Your task to perform on an android device: Open ESPN.com Image 0: 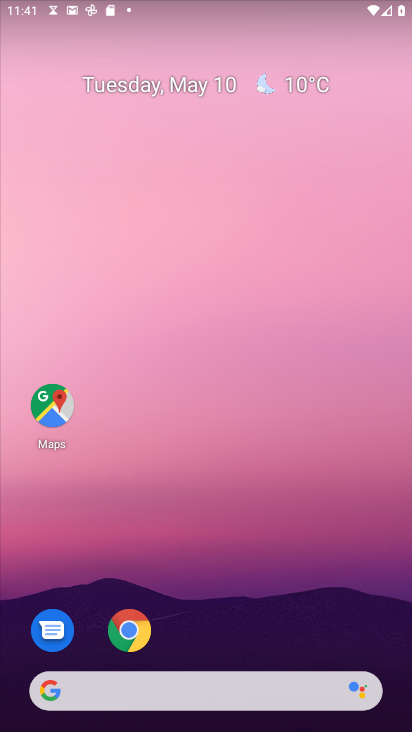
Step 0: click (145, 633)
Your task to perform on an android device: Open ESPN.com Image 1: 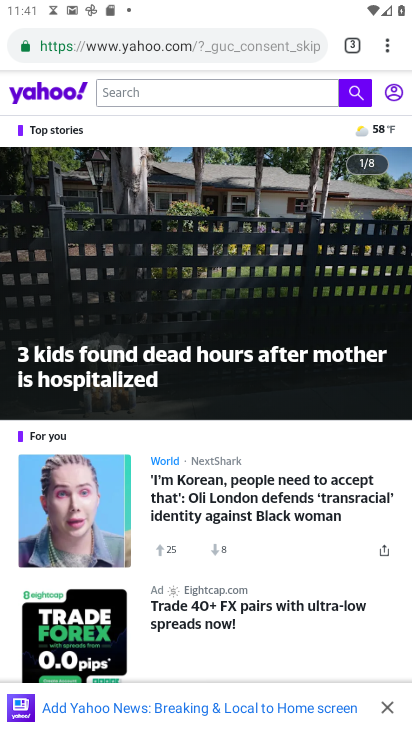
Step 1: click (190, 37)
Your task to perform on an android device: Open ESPN.com Image 2: 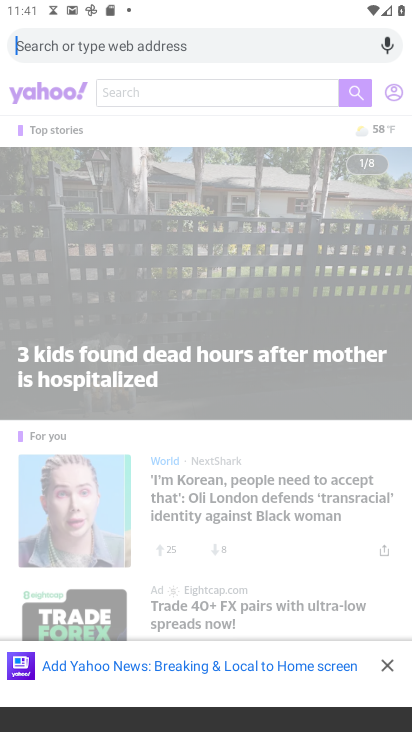
Step 2: click (191, 39)
Your task to perform on an android device: Open ESPN.com Image 3: 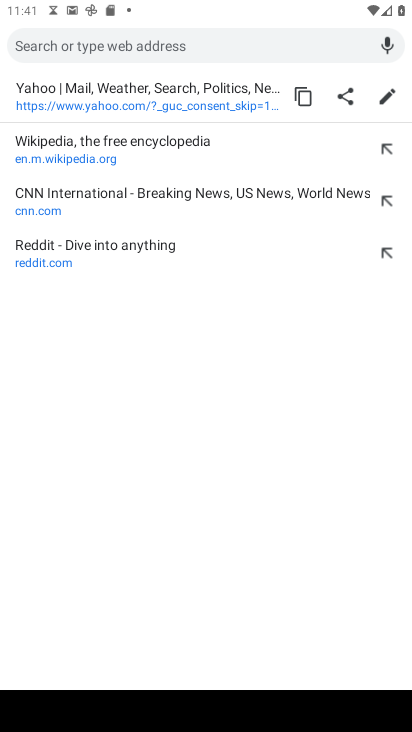
Step 3: type "ESPN.com"
Your task to perform on an android device: Open ESPN.com Image 4: 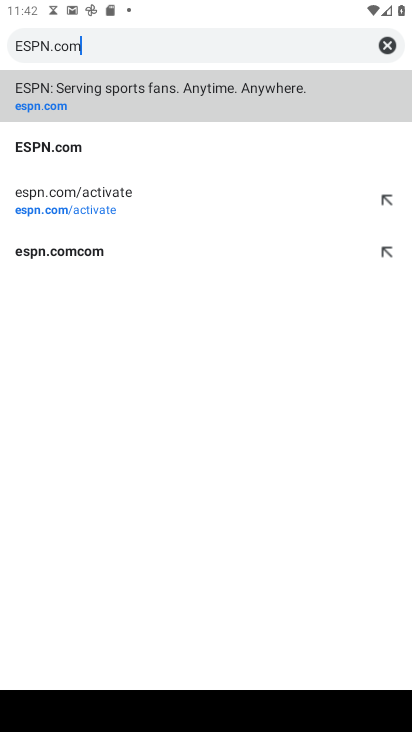
Step 4: click (76, 148)
Your task to perform on an android device: Open ESPN.com Image 5: 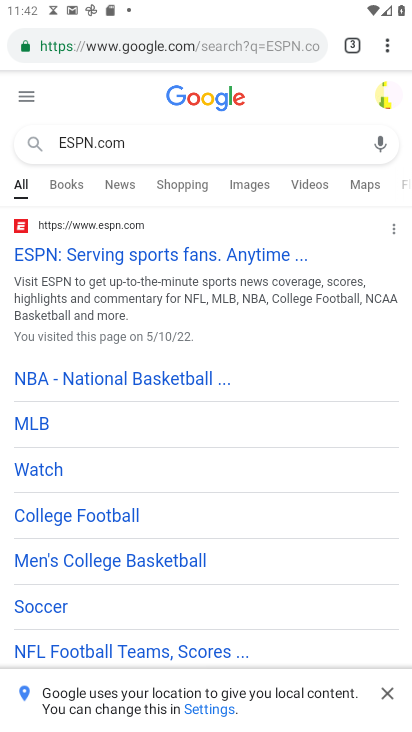
Step 5: task complete